Your task to perform on an android device: Open settings Image 0: 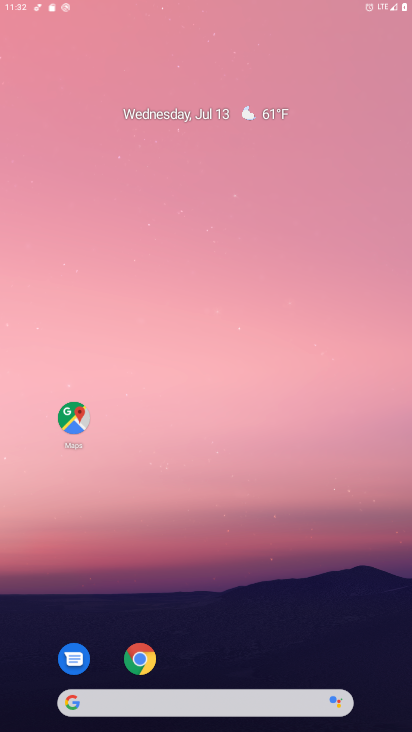
Step 0: press home button
Your task to perform on an android device: Open settings Image 1: 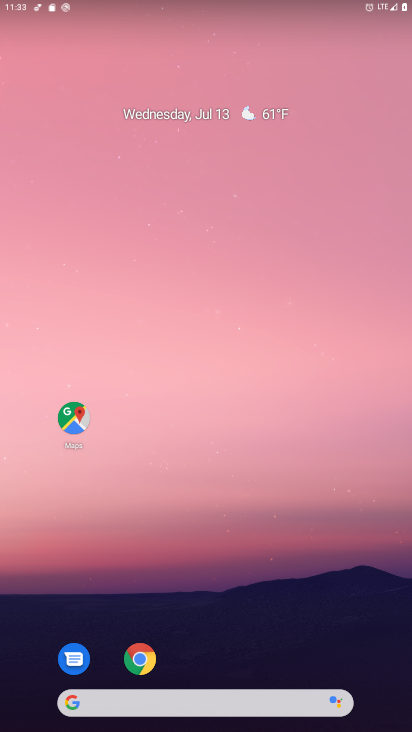
Step 1: drag from (205, 668) to (207, 54)
Your task to perform on an android device: Open settings Image 2: 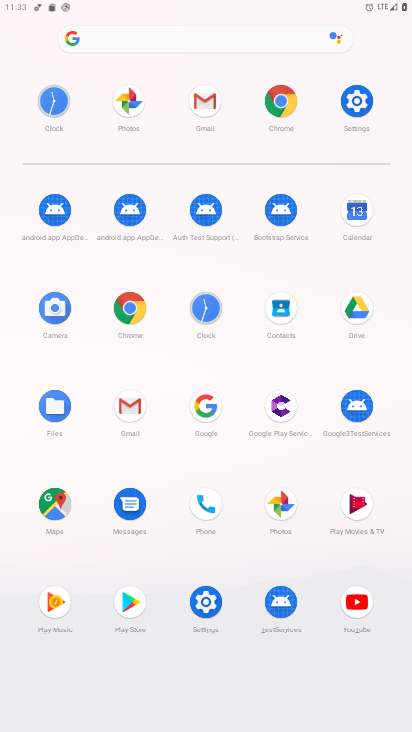
Step 2: click (353, 95)
Your task to perform on an android device: Open settings Image 3: 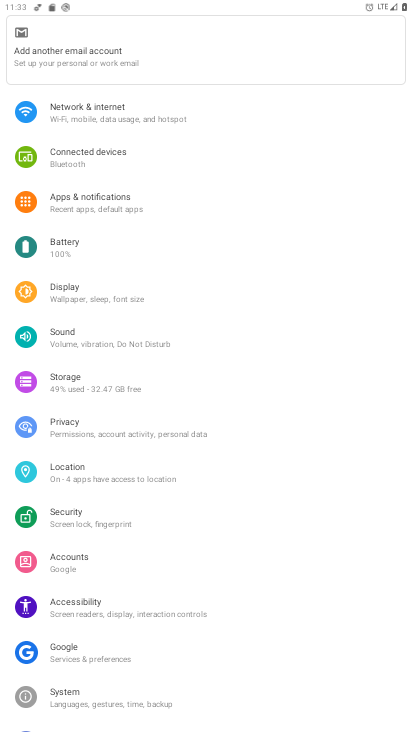
Step 3: task complete